Your task to perform on an android device: How much does a 2 bedroom apartment rent for in New York? Image 0: 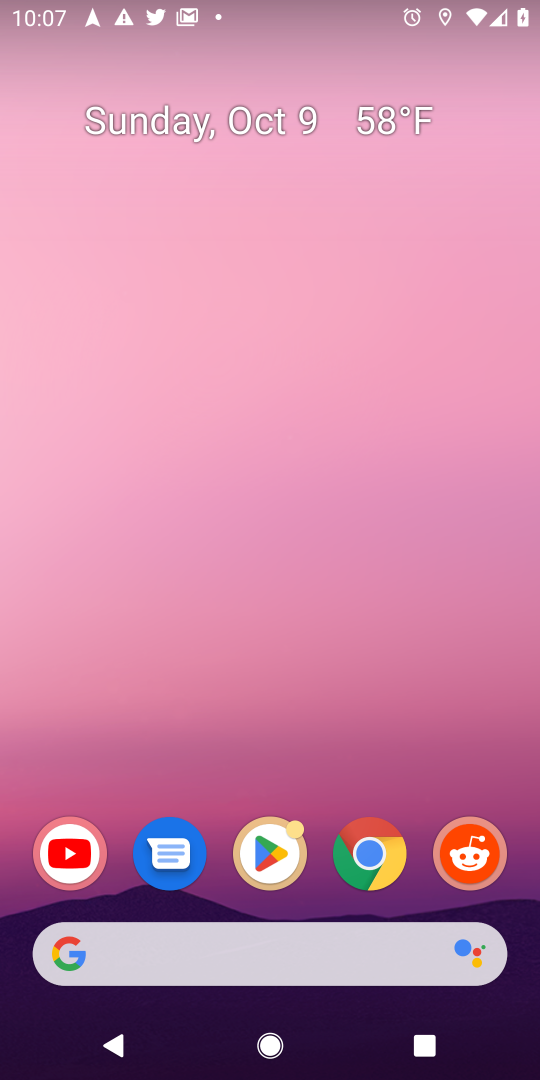
Step 0: click (369, 868)
Your task to perform on an android device: How much does a 2 bedroom apartment rent for in New York? Image 1: 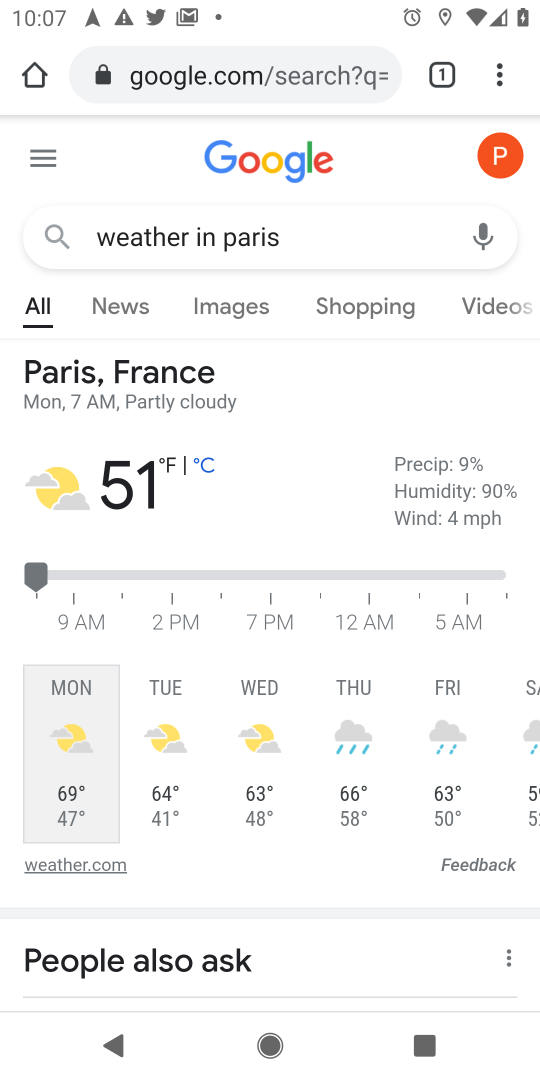
Step 1: click (322, 77)
Your task to perform on an android device: How much does a 2 bedroom apartment rent for in New York? Image 2: 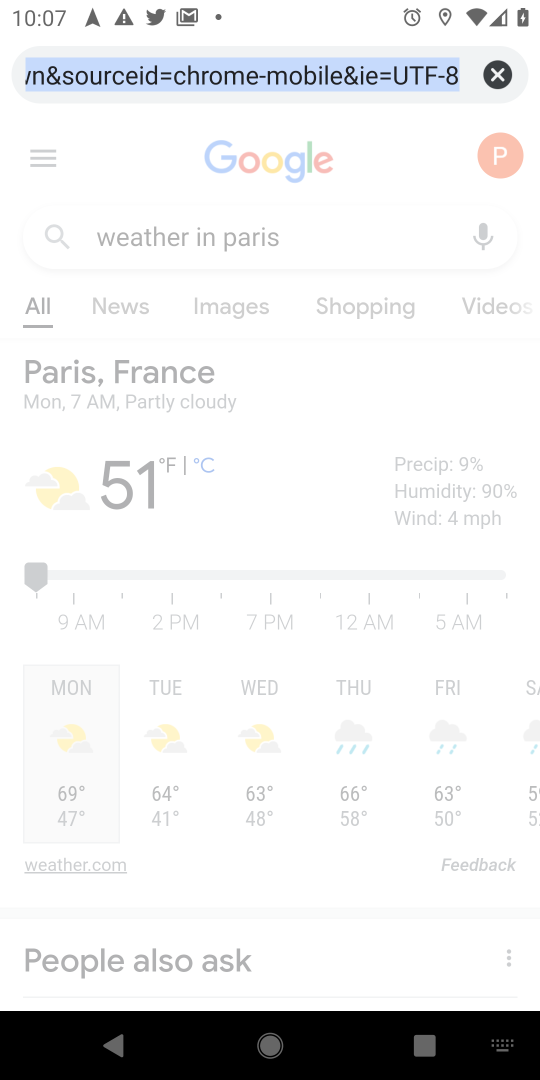
Step 2: type "2 bedroom apartment rent new york"
Your task to perform on an android device: How much does a 2 bedroom apartment rent for in New York? Image 3: 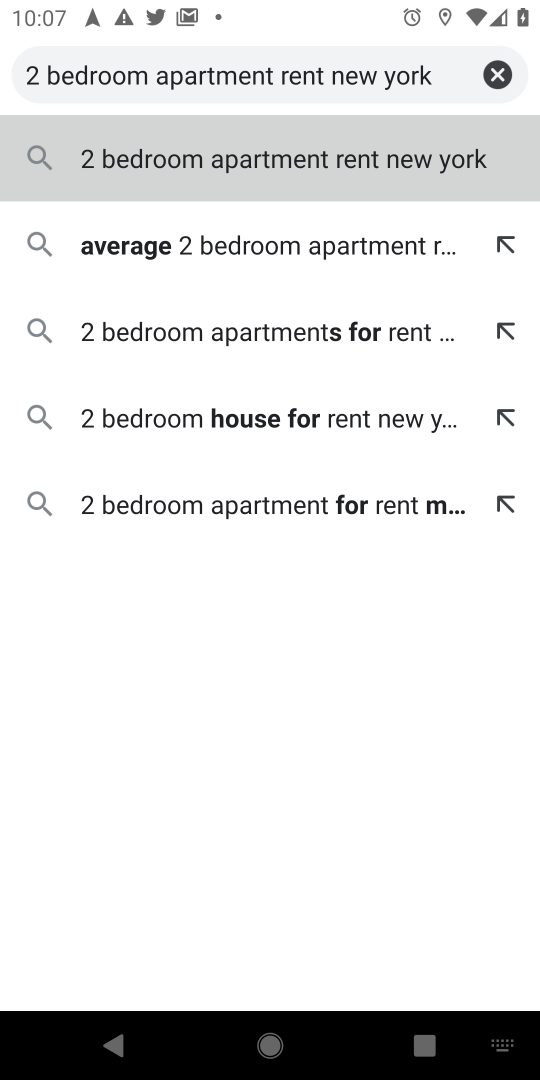
Step 3: click (252, 178)
Your task to perform on an android device: How much does a 2 bedroom apartment rent for in New York? Image 4: 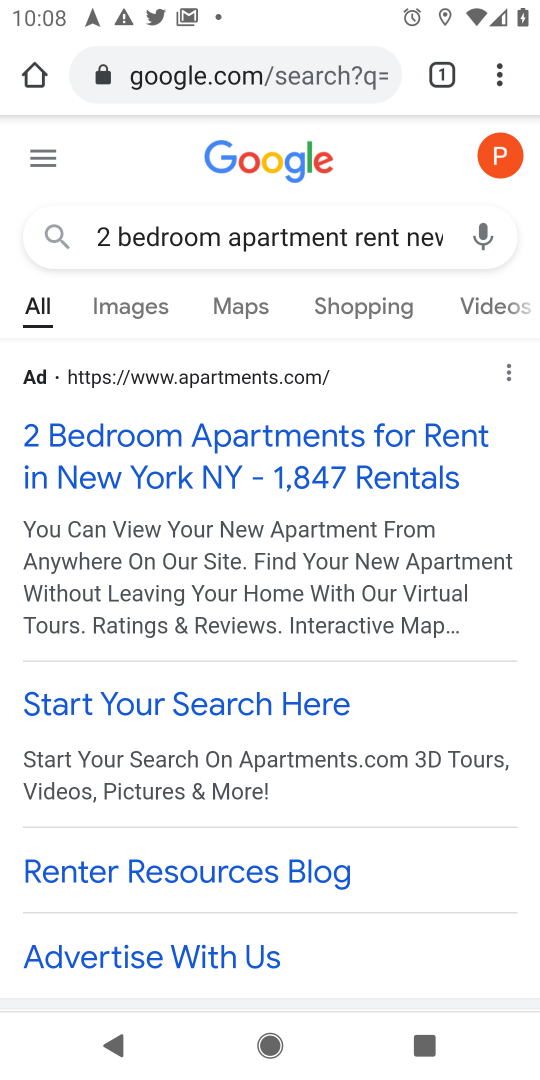
Step 4: click (370, 480)
Your task to perform on an android device: How much does a 2 bedroom apartment rent for in New York? Image 5: 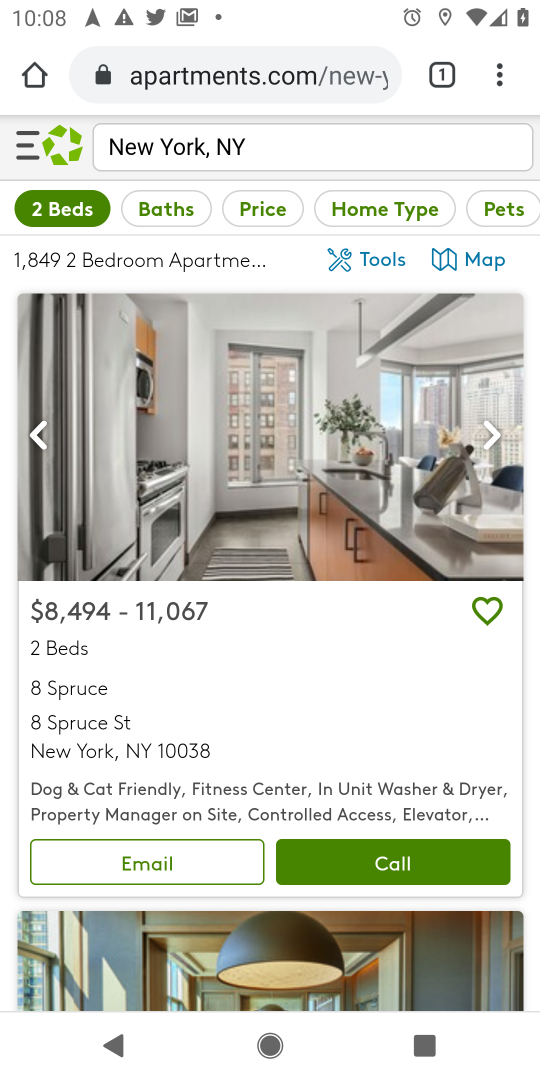
Step 5: task complete